Your task to perform on an android device: Check the weather Image 0: 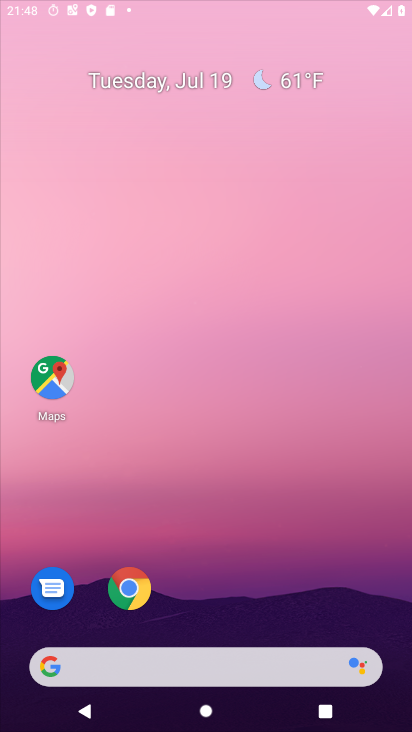
Step 0: press home button
Your task to perform on an android device: Check the weather Image 1: 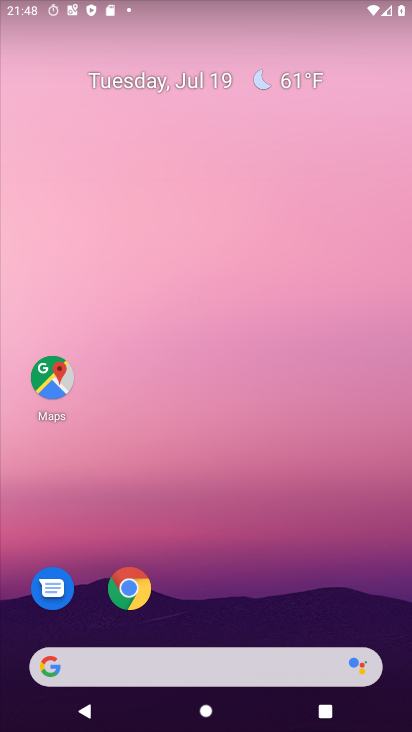
Step 1: click (287, 76)
Your task to perform on an android device: Check the weather Image 2: 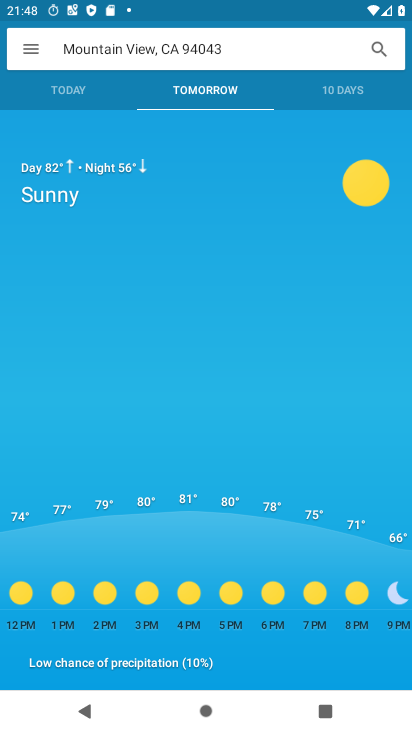
Step 2: click (64, 91)
Your task to perform on an android device: Check the weather Image 3: 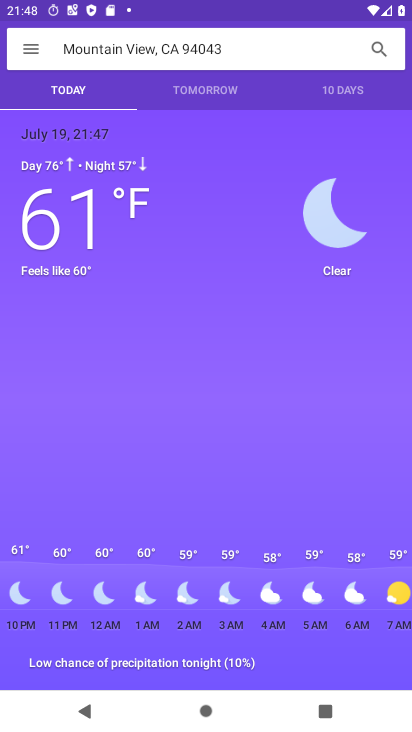
Step 3: task complete